Your task to perform on an android device: Open location settings Image 0: 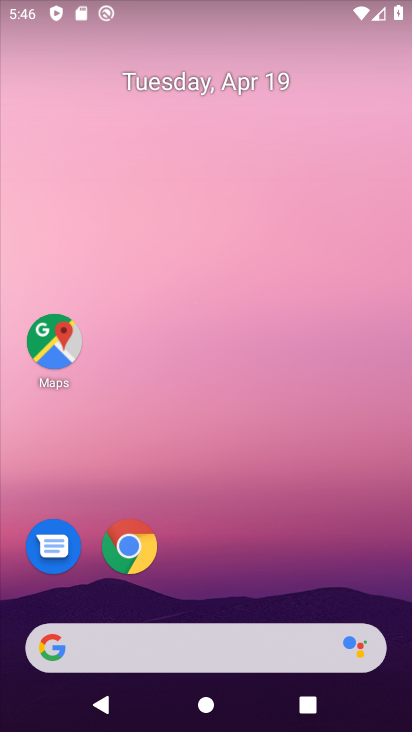
Step 0: drag from (219, 586) to (257, 31)
Your task to perform on an android device: Open location settings Image 1: 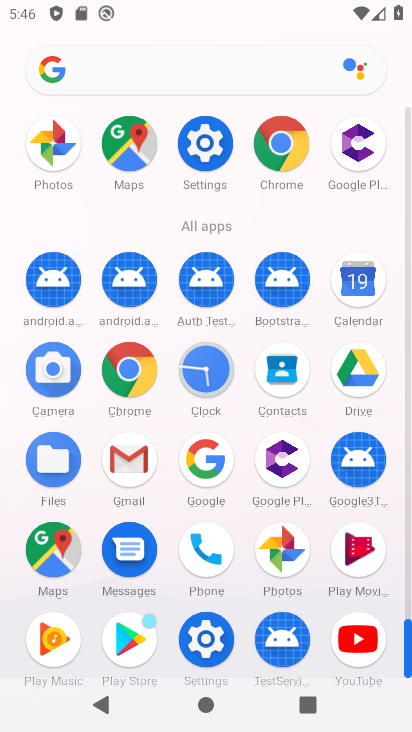
Step 1: click (208, 650)
Your task to perform on an android device: Open location settings Image 2: 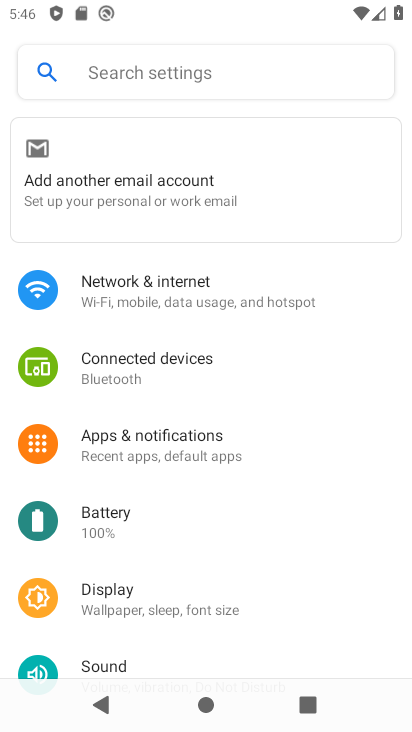
Step 2: drag from (304, 561) to (319, 14)
Your task to perform on an android device: Open location settings Image 3: 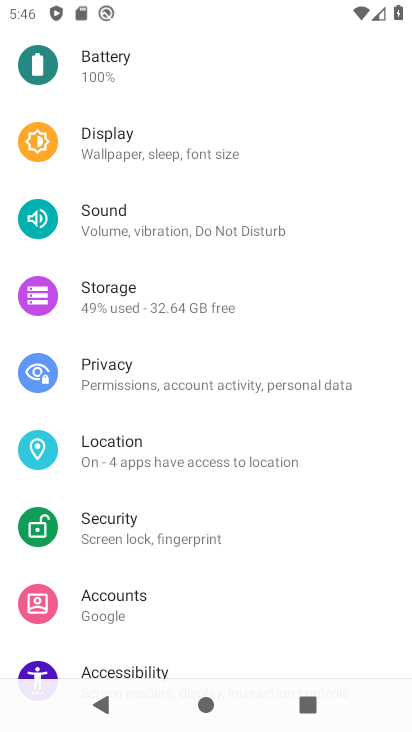
Step 3: click (182, 453)
Your task to perform on an android device: Open location settings Image 4: 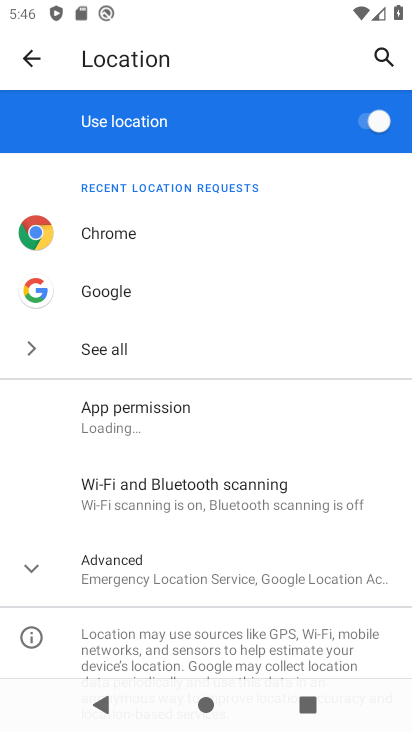
Step 4: task complete